Your task to perform on an android device: toggle airplane mode Image 0: 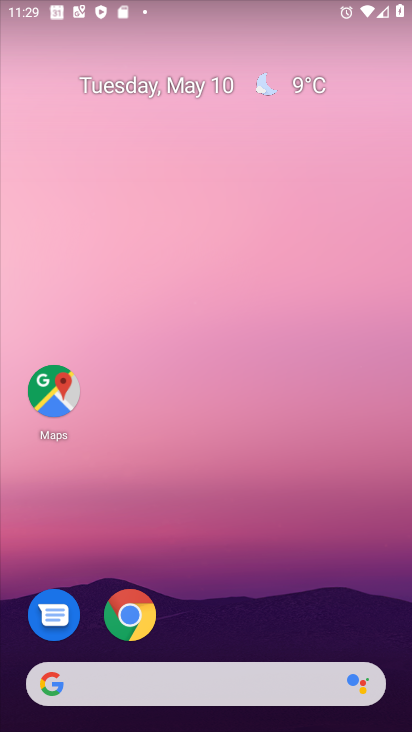
Step 0: drag from (258, 10) to (268, 685)
Your task to perform on an android device: toggle airplane mode Image 1: 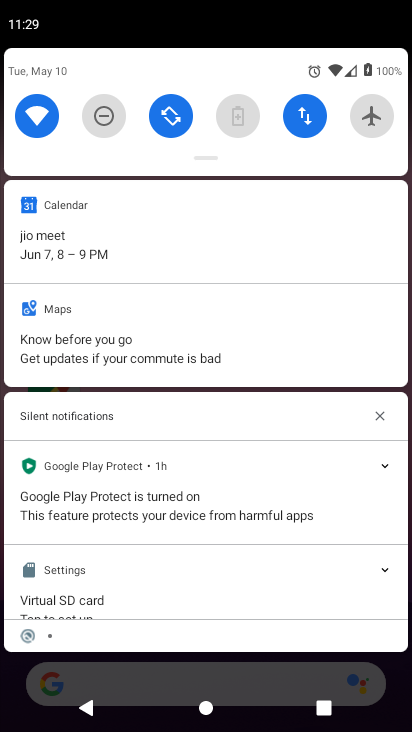
Step 1: click (378, 112)
Your task to perform on an android device: toggle airplane mode Image 2: 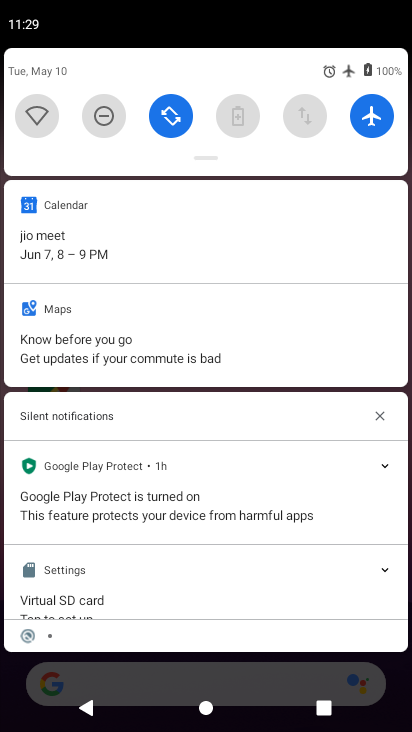
Step 2: task complete